Your task to perform on an android device: install app "Adobe Acrobat Reader" Image 0: 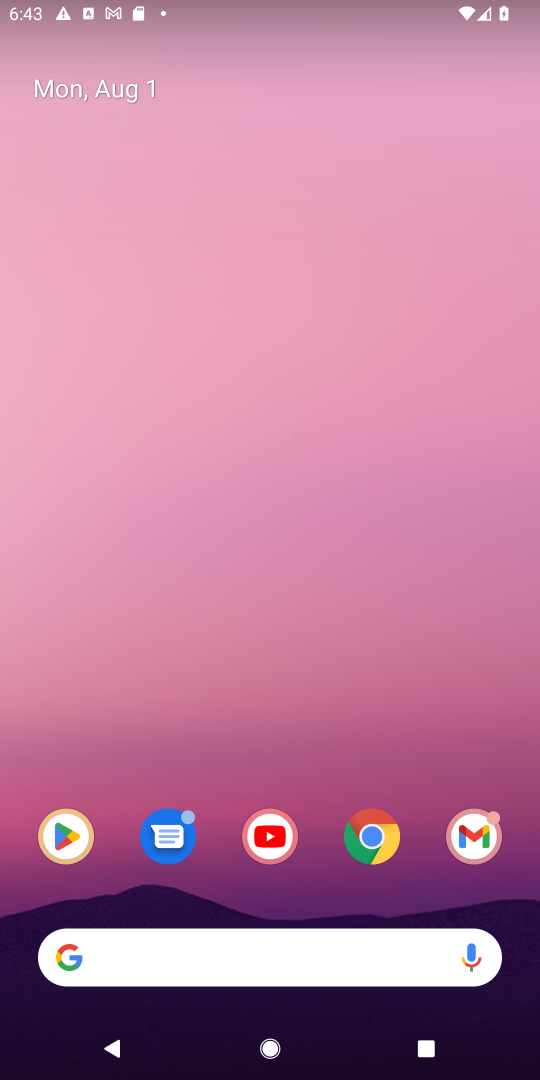
Step 0: press home button
Your task to perform on an android device: install app "Adobe Acrobat Reader" Image 1: 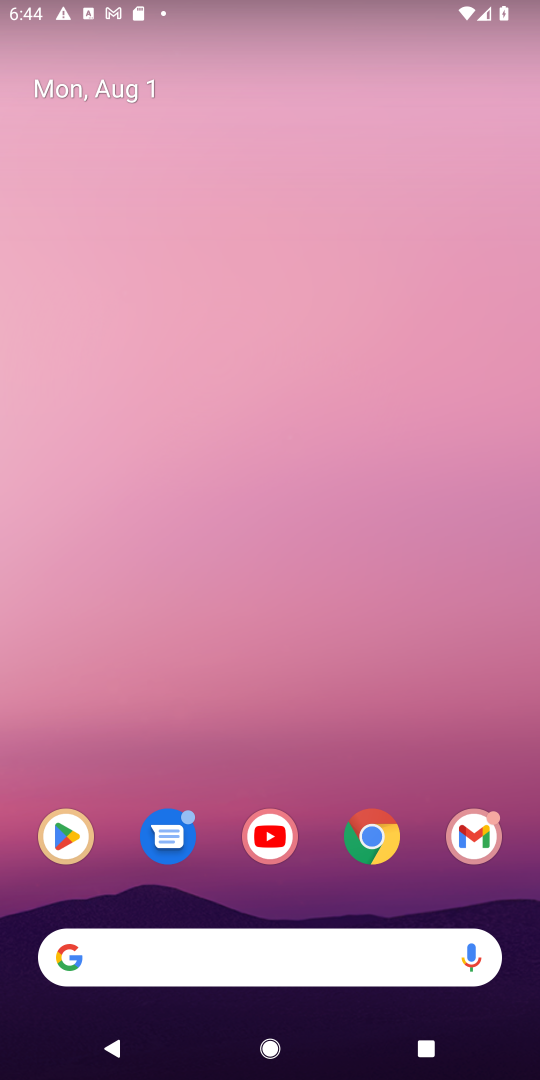
Step 1: click (66, 828)
Your task to perform on an android device: install app "Adobe Acrobat Reader" Image 2: 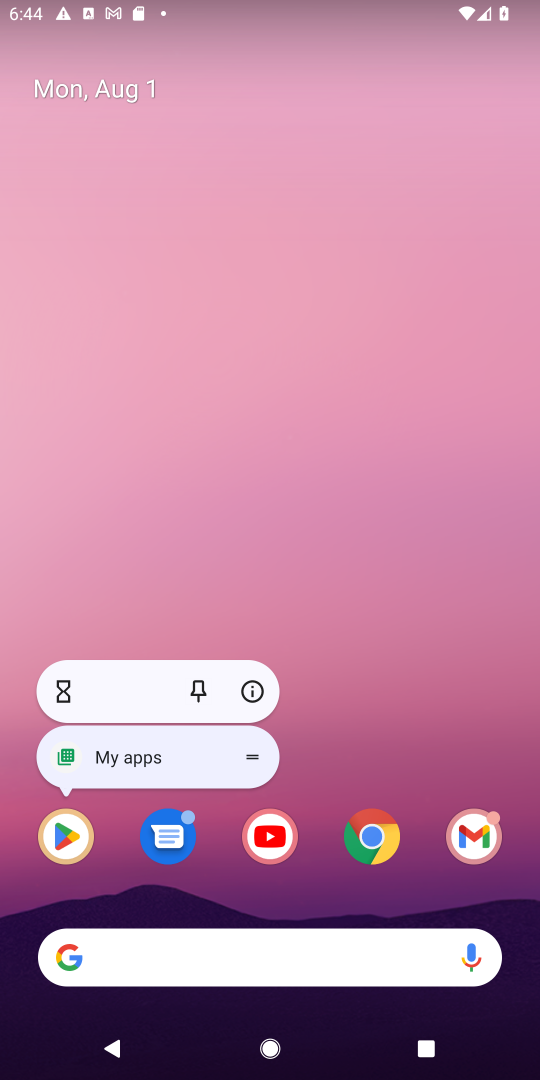
Step 2: click (77, 824)
Your task to perform on an android device: install app "Adobe Acrobat Reader" Image 3: 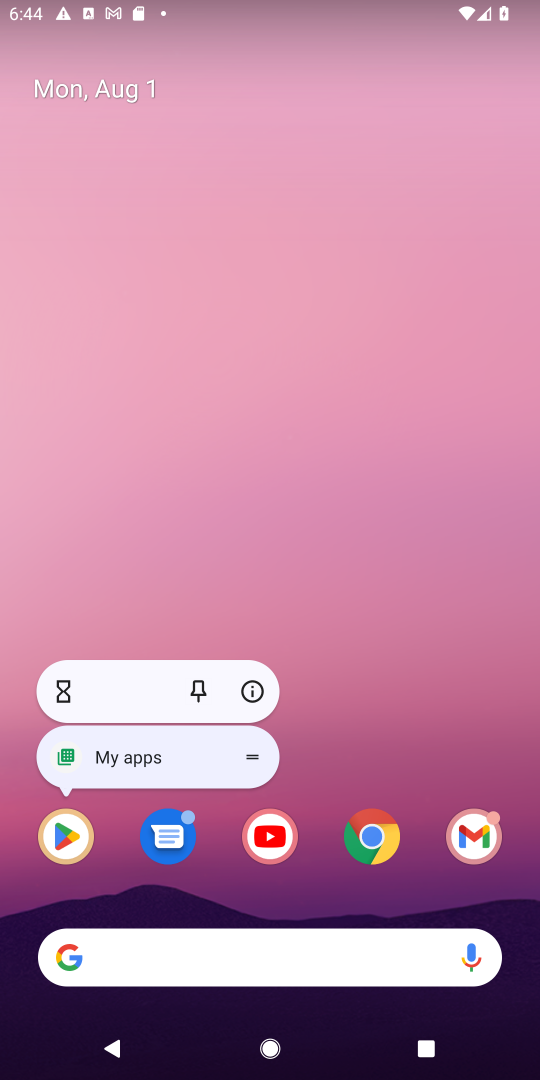
Step 3: click (77, 825)
Your task to perform on an android device: install app "Adobe Acrobat Reader" Image 4: 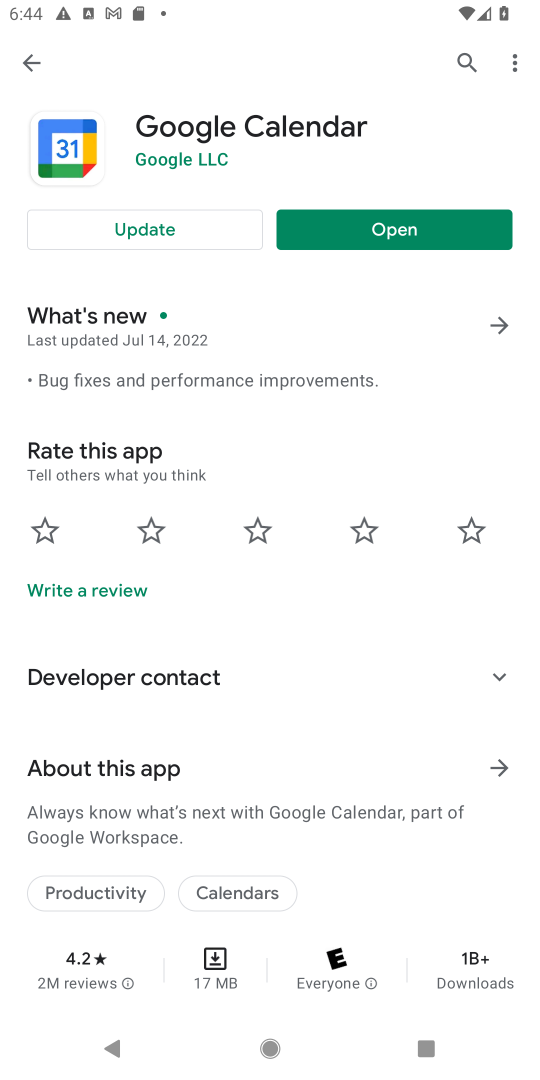
Step 4: click (467, 65)
Your task to perform on an android device: install app "Adobe Acrobat Reader" Image 5: 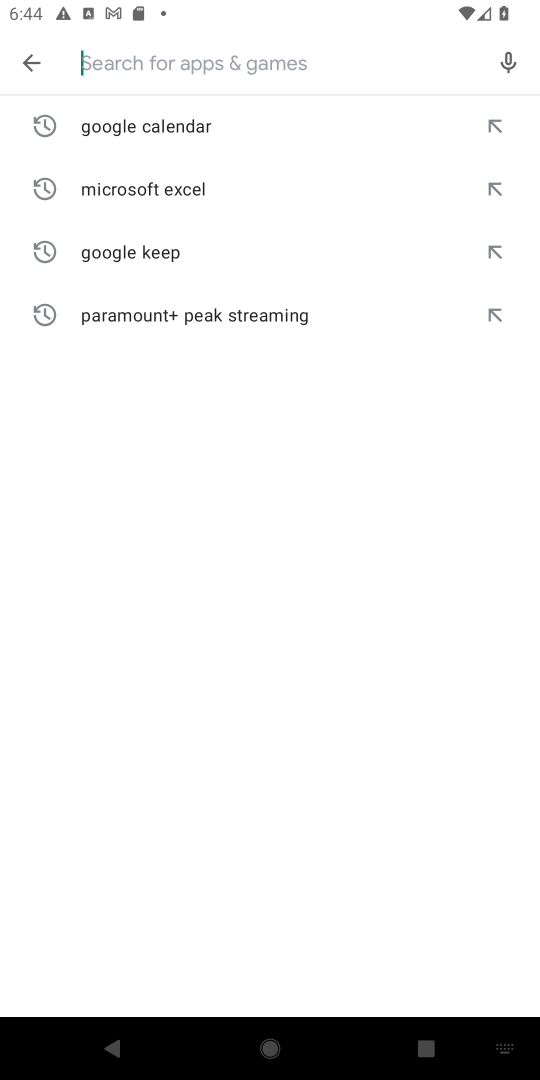
Step 5: type "Adobe Acrobat Reader"
Your task to perform on an android device: install app "Adobe Acrobat Reader" Image 6: 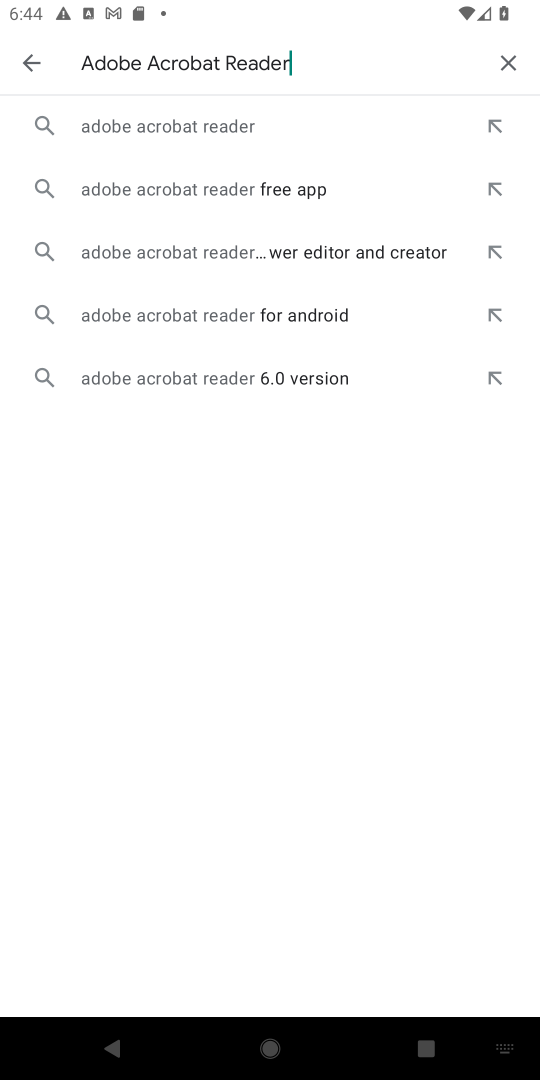
Step 6: click (228, 126)
Your task to perform on an android device: install app "Adobe Acrobat Reader" Image 7: 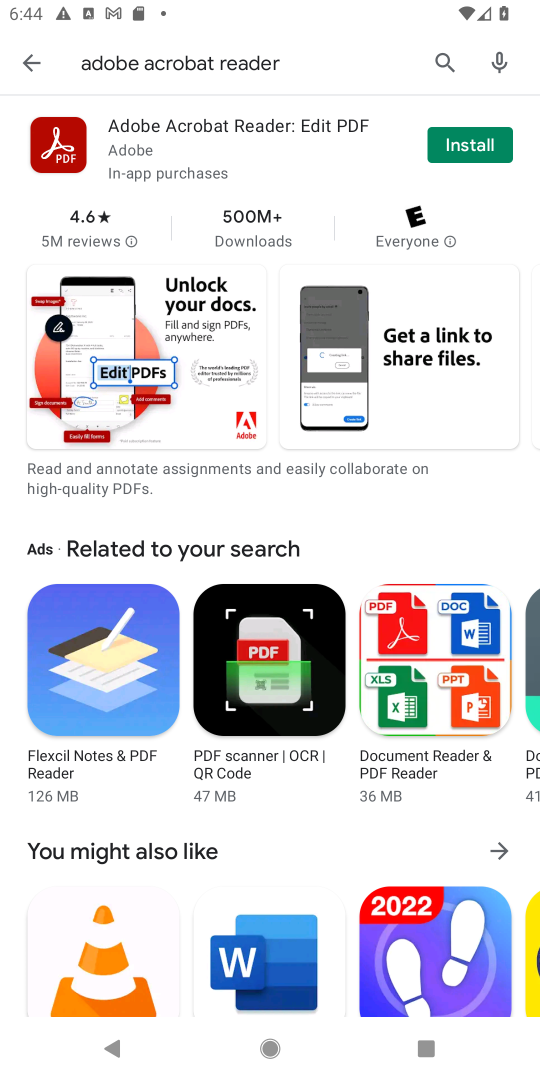
Step 7: click (473, 145)
Your task to perform on an android device: install app "Adobe Acrobat Reader" Image 8: 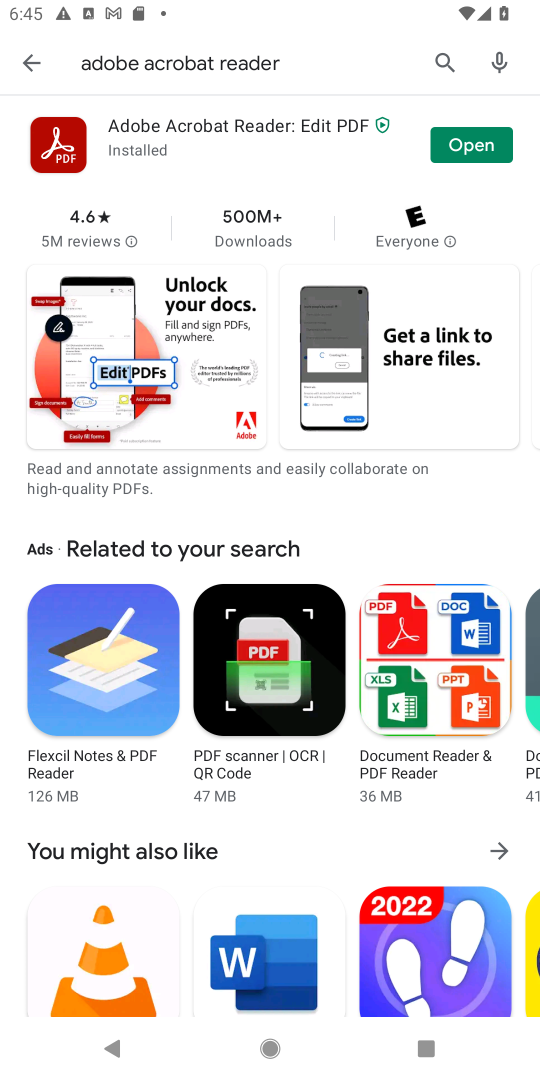
Step 8: task complete